Your task to perform on an android device: open app "Microsoft Authenticator" (install if not already installed) Image 0: 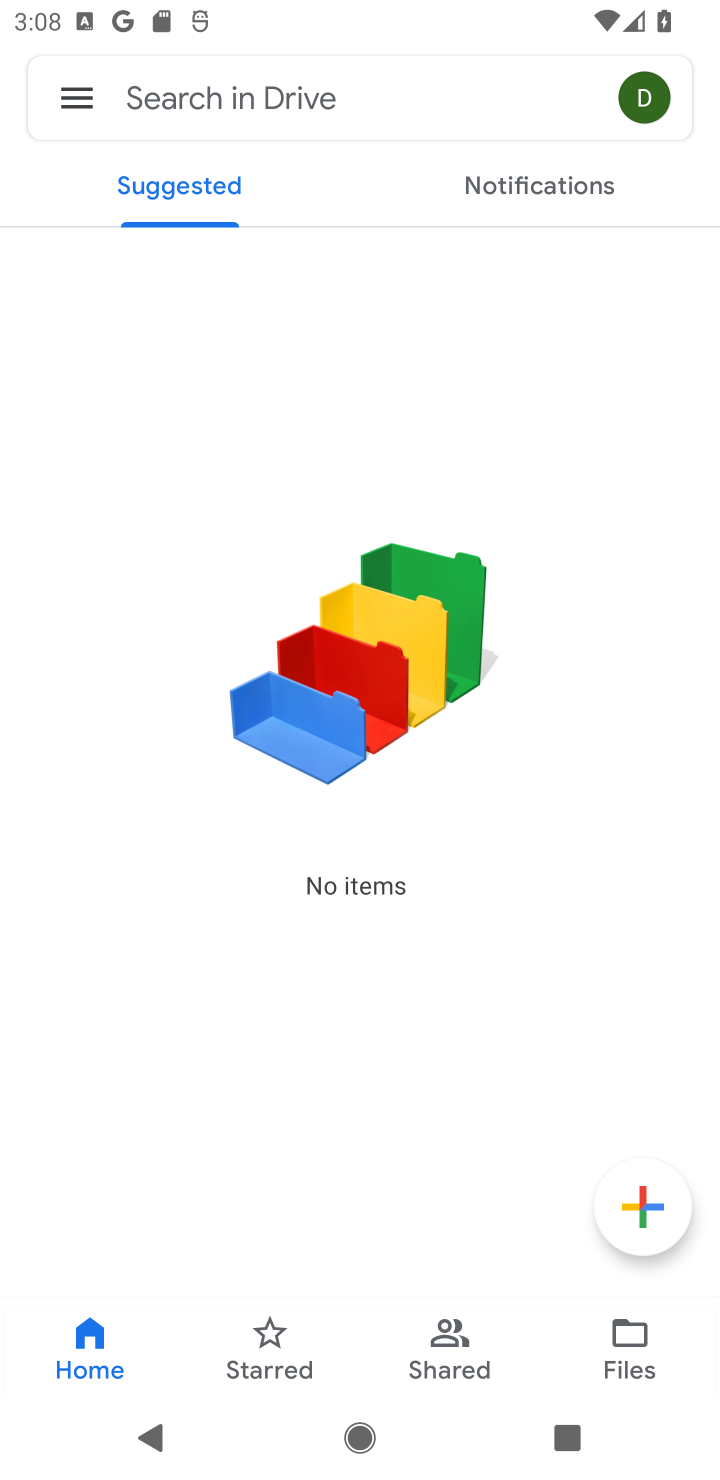
Step 0: press home button
Your task to perform on an android device: open app "Microsoft Authenticator" (install if not already installed) Image 1: 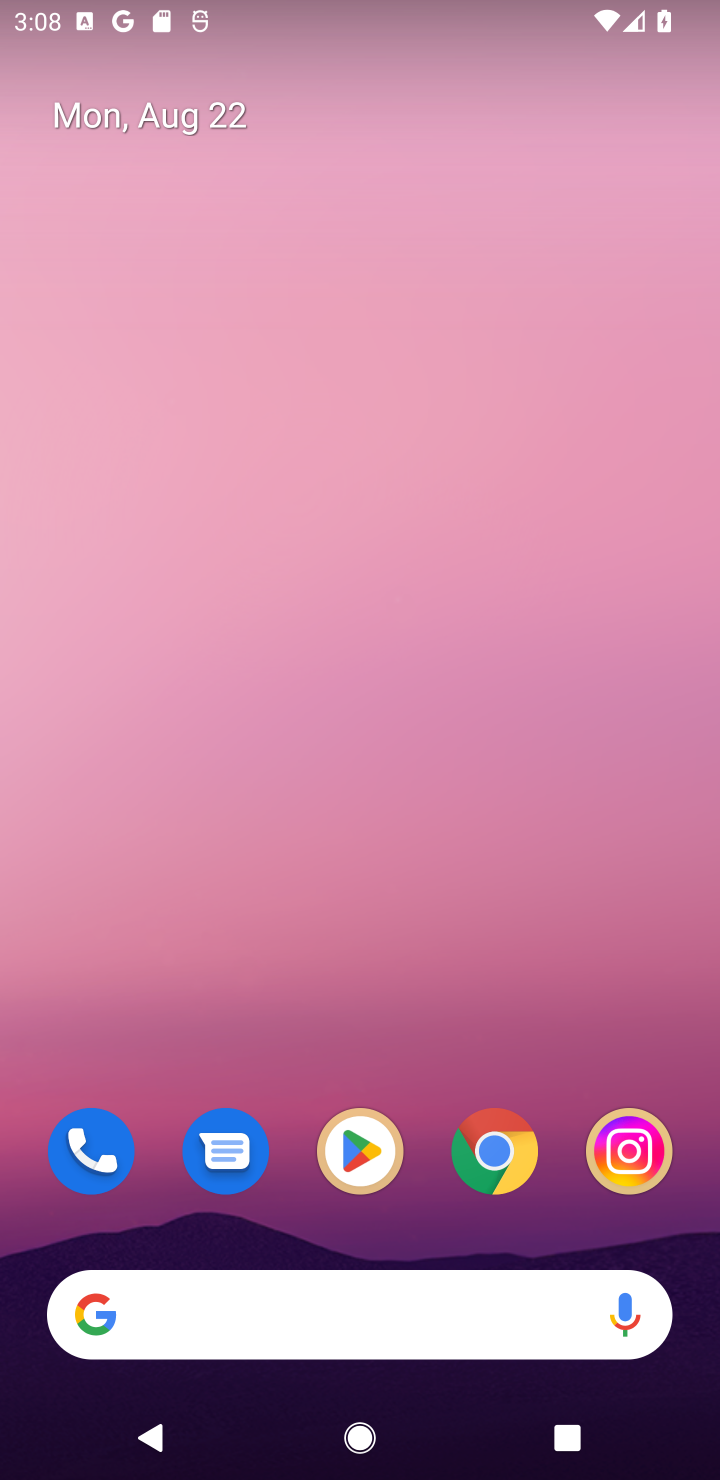
Step 1: click (354, 1147)
Your task to perform on an android device: open app "Microsoft Authenticator" (install if not already installed) Image 2: 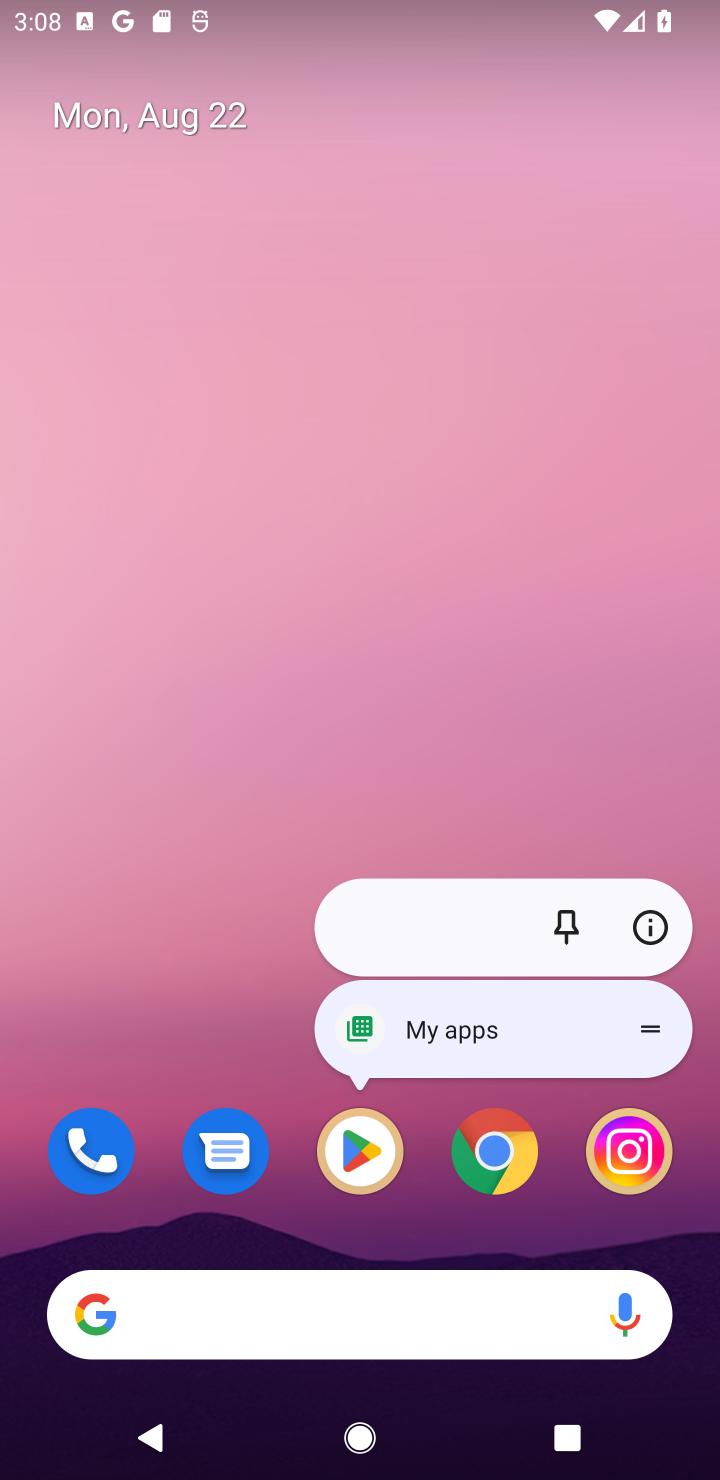
Step 2: click (364, 1159)
Your task to perform on an android device: open app "Microsoft Authenticator" (install if not already installed) Image 3: 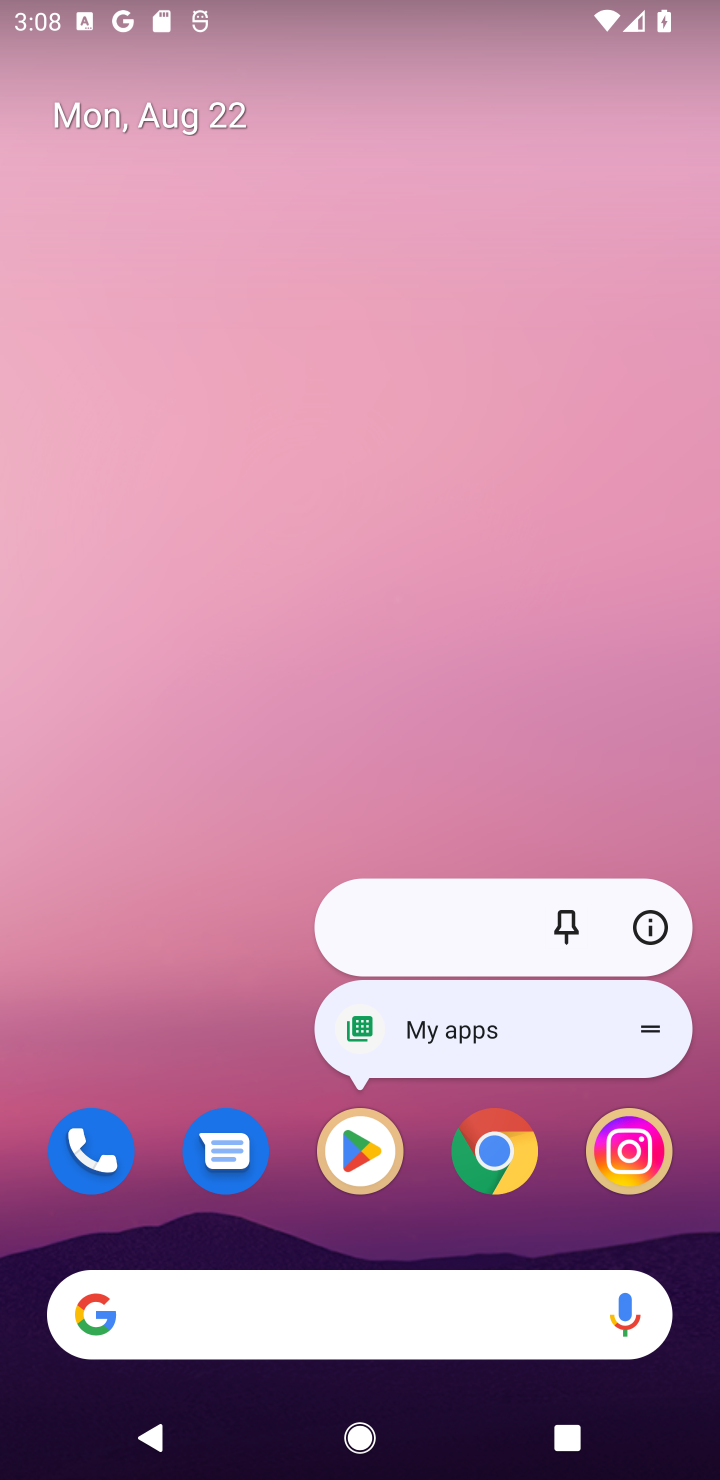
Step 3: click (364, 1163)
Your task to perform on an android device: open app "Microsoft Authenticator" (install if not already installed) Image 4: 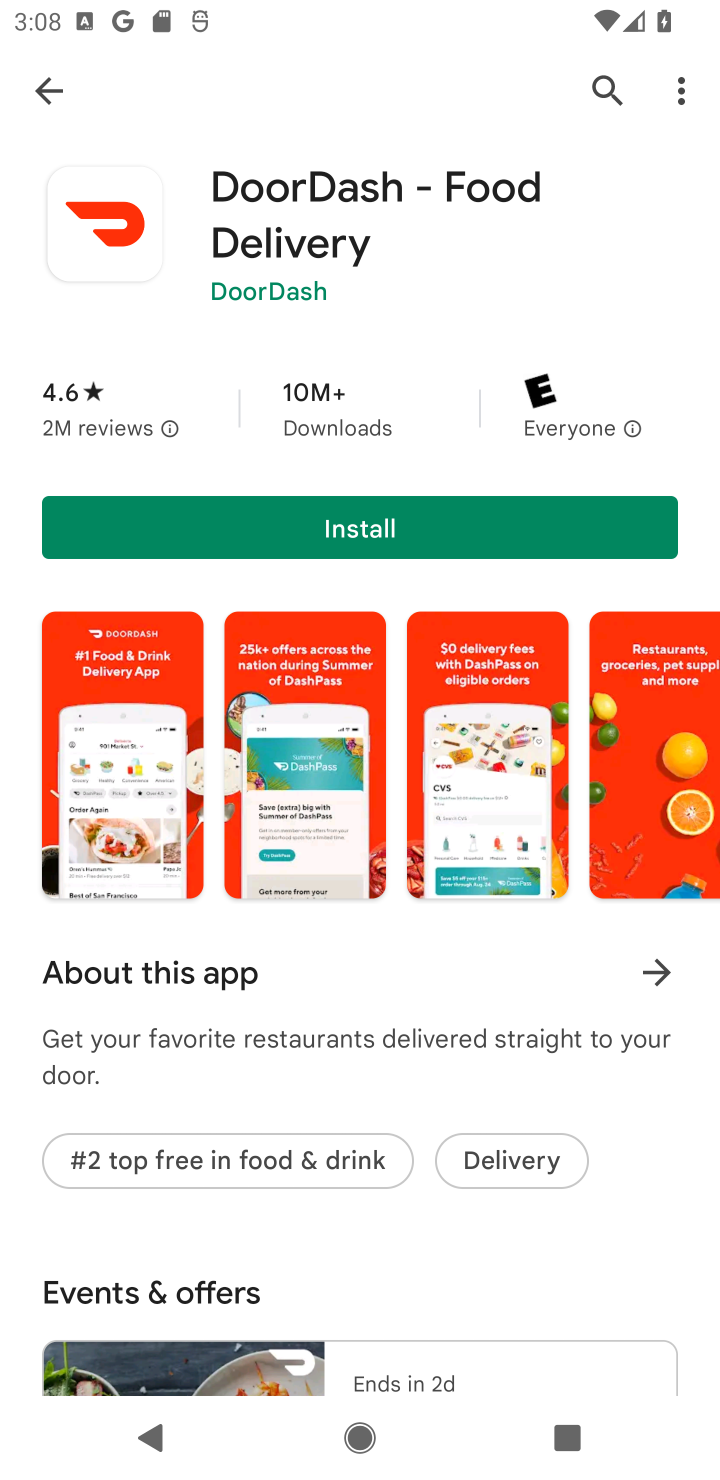
Step 4: click (609, 85)
Your task to perform on an android device: open app "Microsoft Authenticator" (install if not already installed) Image 5: 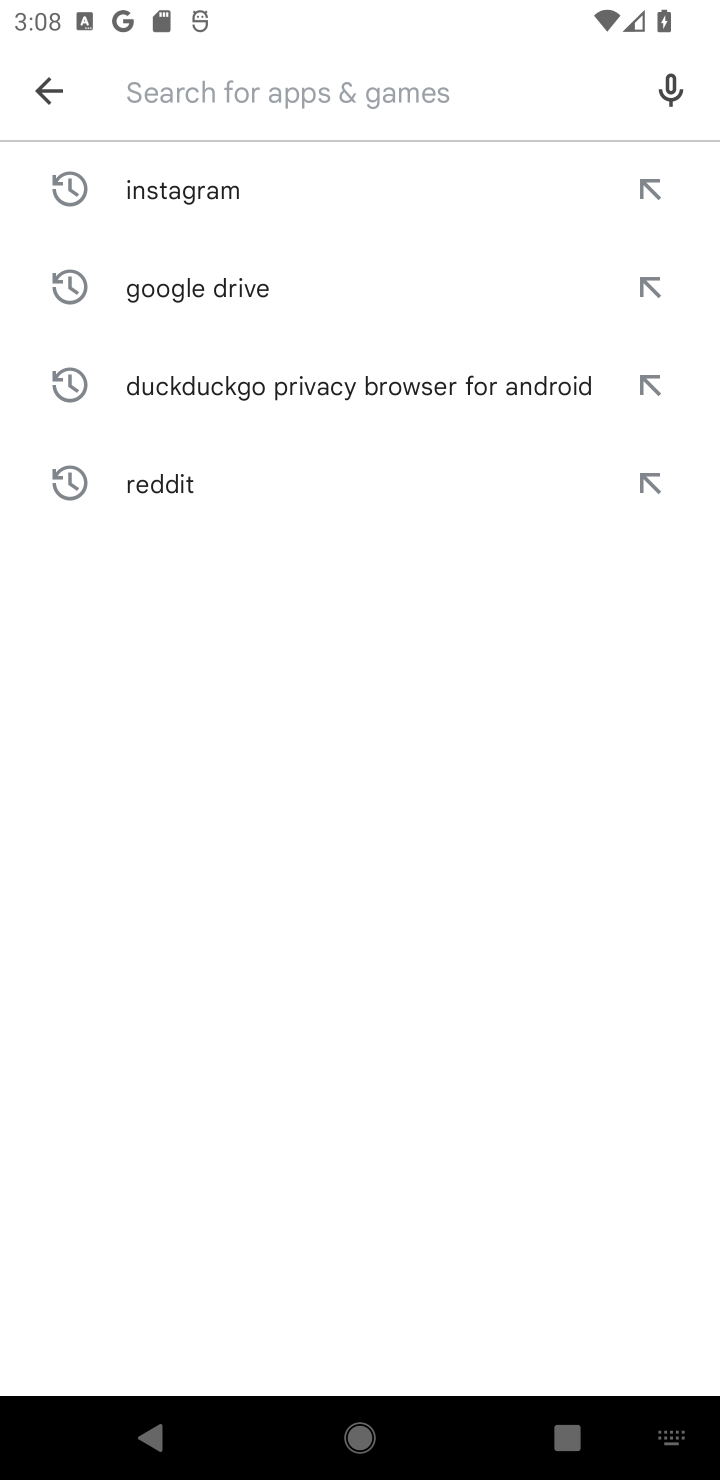
Step 5: type "Microsoft Authenticator"
Your task to perform on an android device: open app "Microsoft Authenticator" (install if not already installed) Image 6: 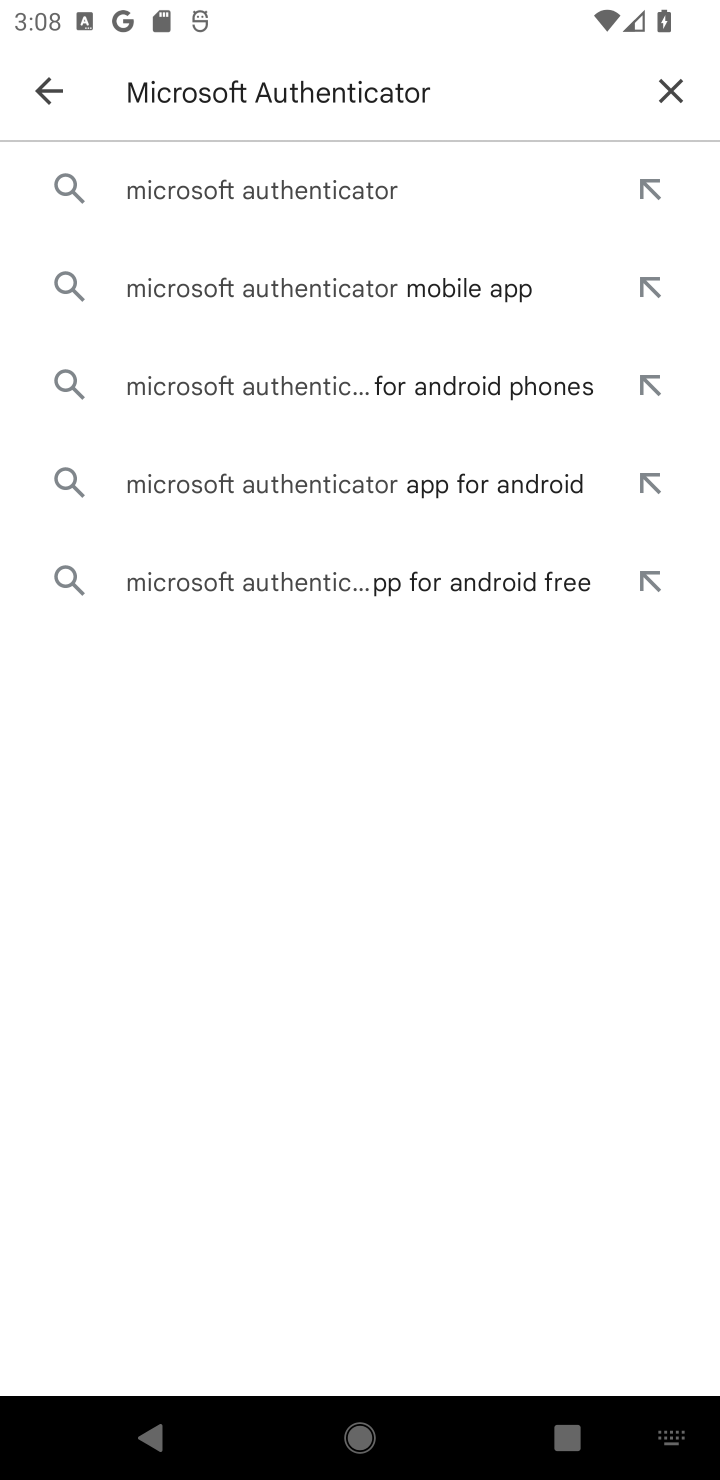
Step 6: click (249, 184)
Your task to perform on an android device: open app "Microsoft Authenticator" (install if not already installed) Image 7: 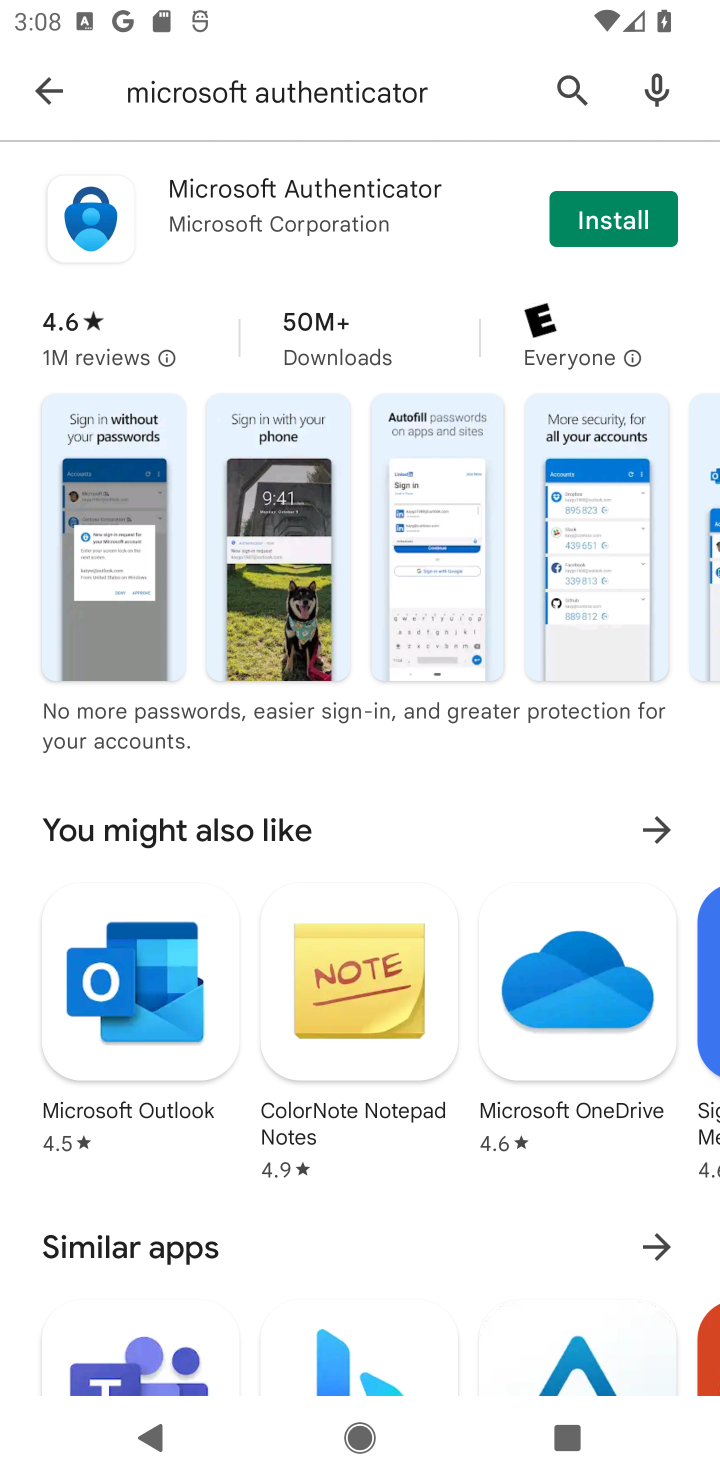
Step 7: click (613, 219)
Your task to perform on an android device: open app "Microsoft Authenticator" (install if not already installed) Image 8: 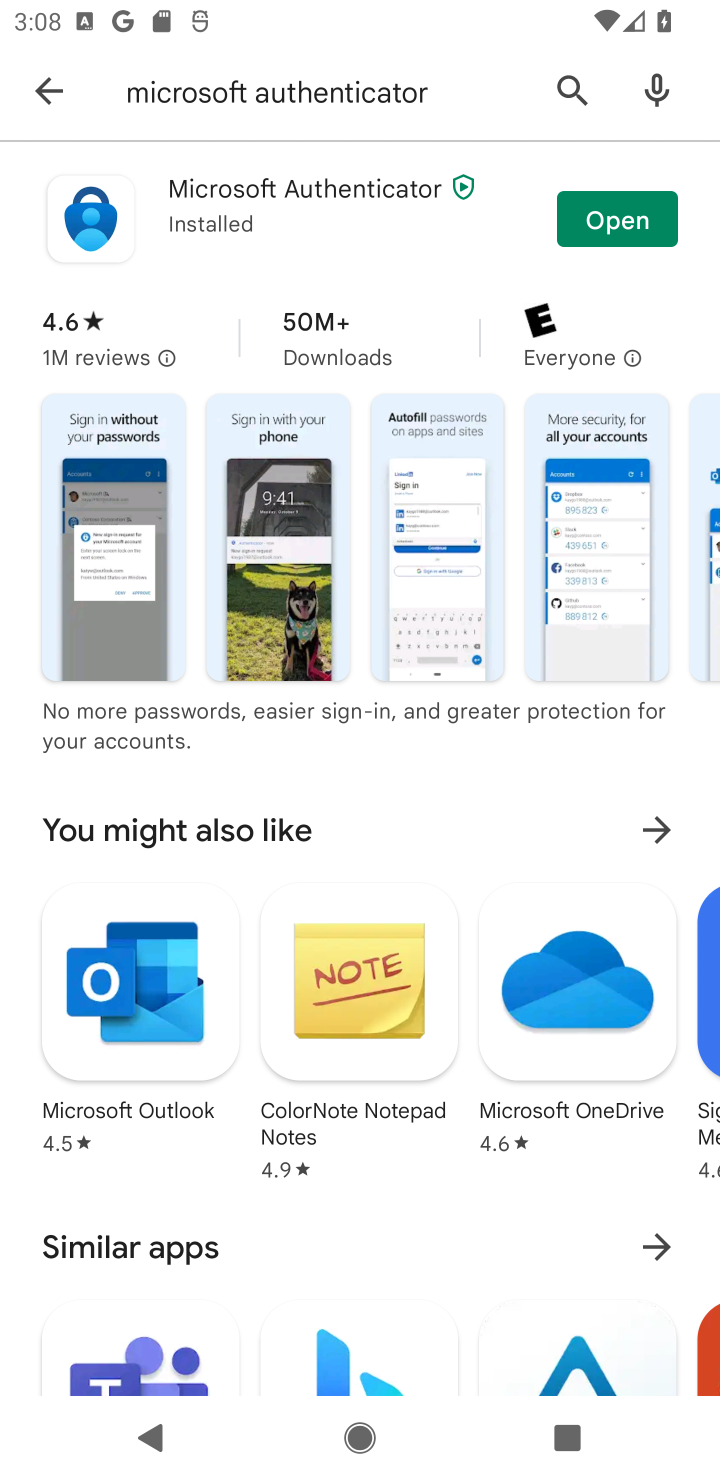
Step 8: click (629, 217)
Your task to perform on an android device: open app "Microsoft Authenticator" (install if not already installed) Image 9: 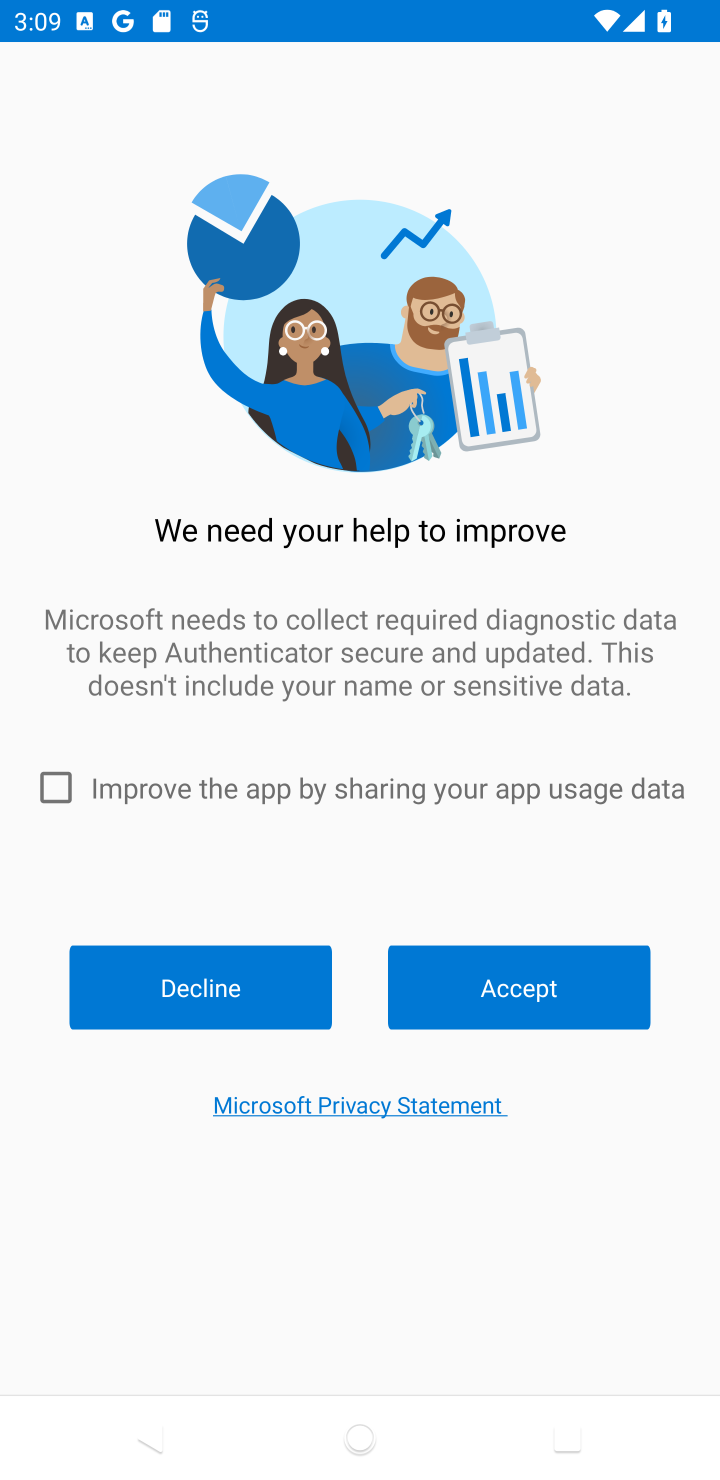
Step 9: task complete